Your task to perform on an android device: Open Google Chrome and open the bookmarks view Image 0: 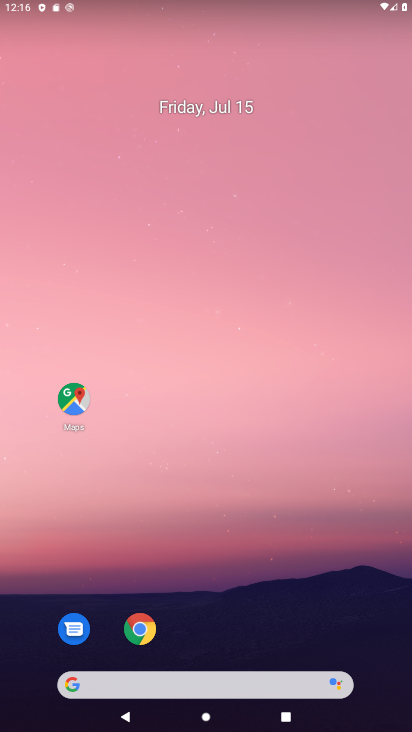
Step 0: drag from (231, 457) to (211, 63)
Your task to perform on an android device: Open Google Chrome and open the bookmarks view Image 1: 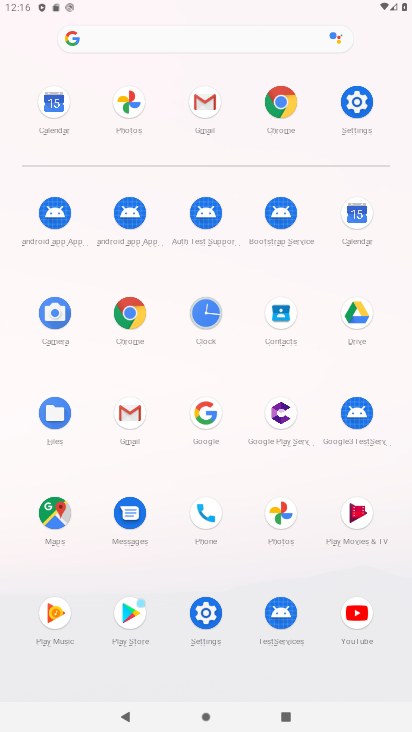
Step 1: click (278, 105)
Your task to perform on an android device: Open Google Chrome and open the bookmarks view Image 2: 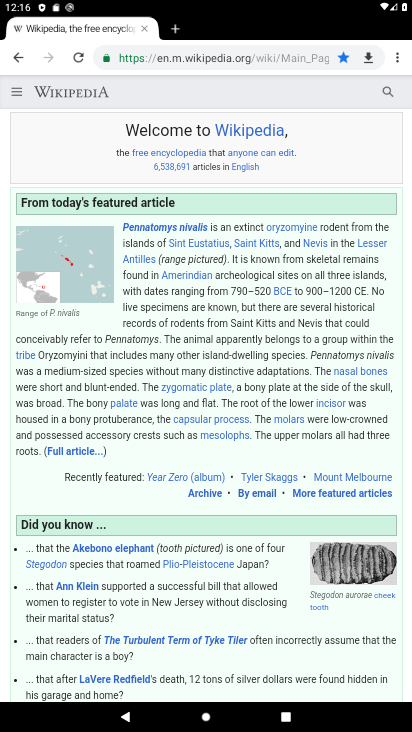
Step 2: task complete